Your task to perform on an android device: Show me productivity apps on the Play Store Image 0: 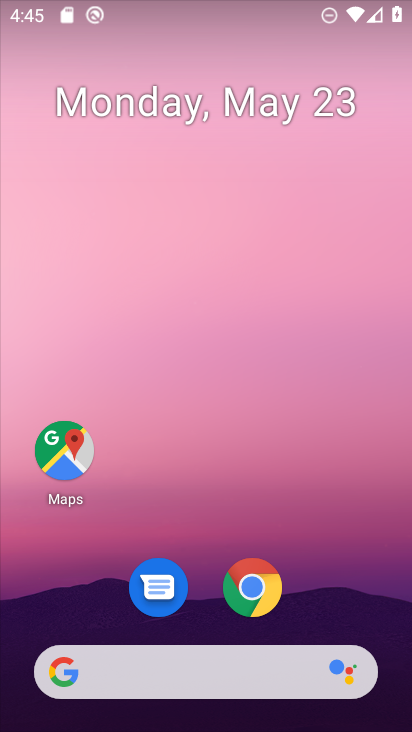
Step 0: drag from (197, 626) to (265, 16)
Your task to perform on an android device: Show me productivity apps on the Play Store Image 1: 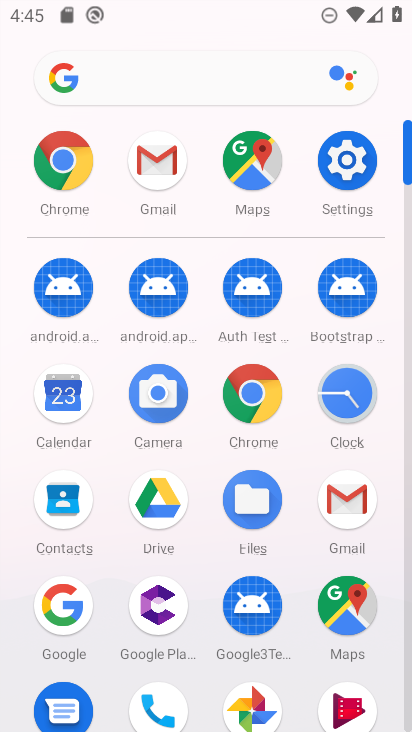
Step 1: drag from (200, 625) to (266, 89)
Your task to perform on an android device: Show me productivity apps on the Play Store Image 2: 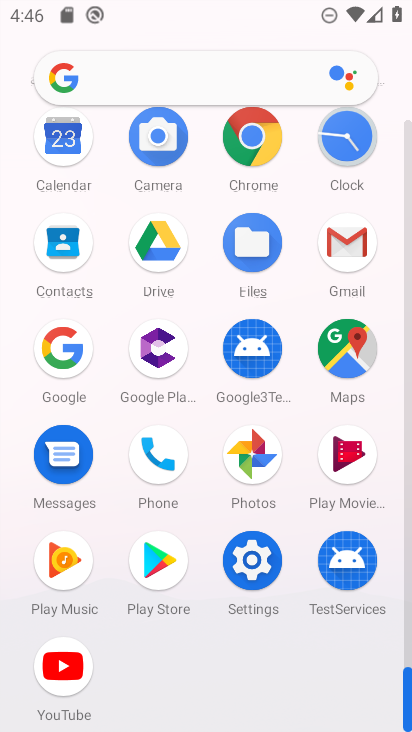
Step 2: click (152, 579)
Your task to perform on an android device: Show me productivity apps on the Play Store Image 3: 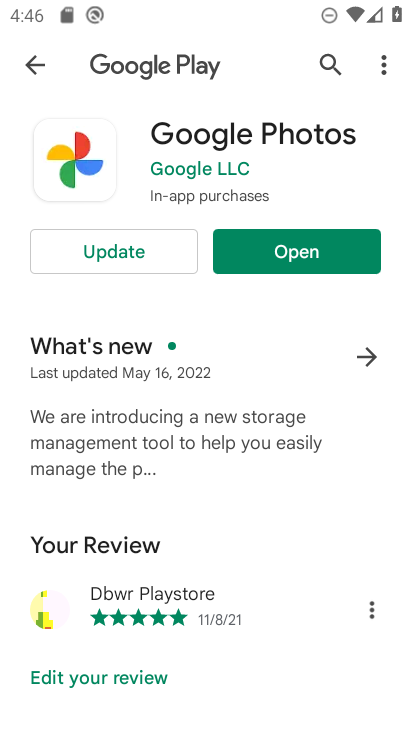
Step 3: click (40, 66)
Your task to perform on an android device: Show me productivity apps on the Play Store Image 4: 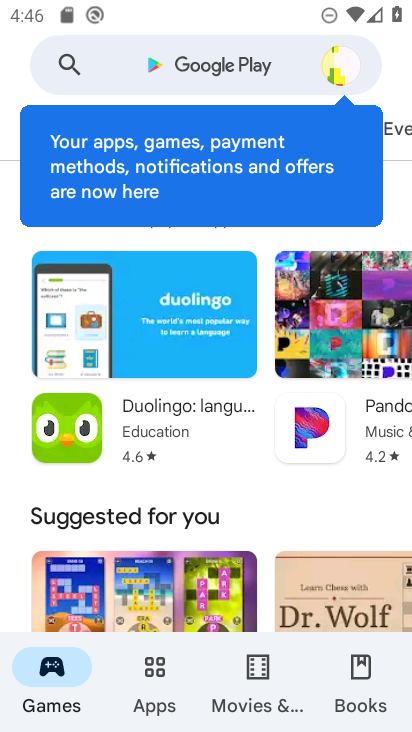
Step 4: click (147, 678)
Your task to perform on an android device: Show me productivity apps on the Play Store Image 5: 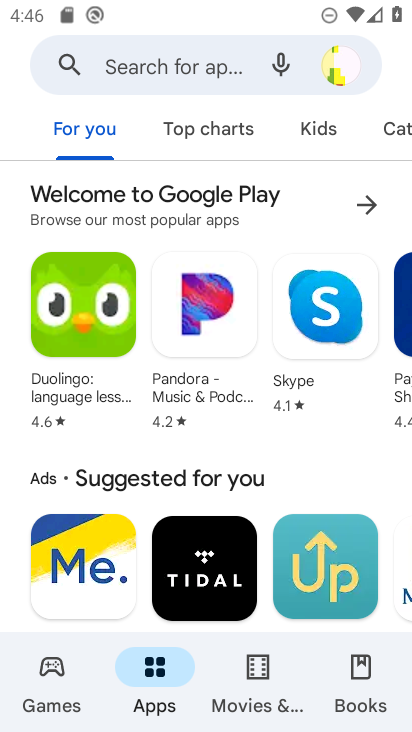
Step 5: click (386, 120)
Your task to perform on an android device: Show me productivity apps on the Play Store Image 6: 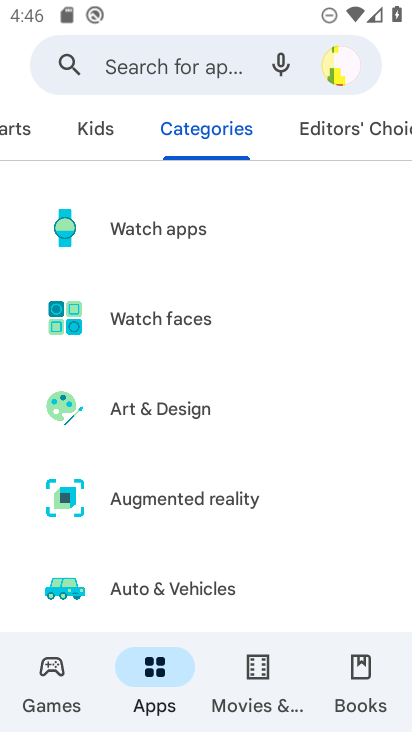
Step 6: drag from (173, 566) to (204, 84)
Your task to perform on an android device: Show me productivity apps on the Play Store Image 7: 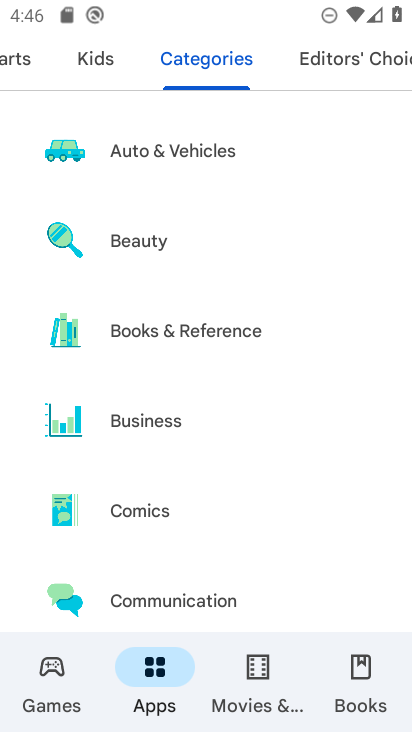
Step 7: drag from (154, 523) to (206, 89)
Your task to perform on an android device: Show me productivity apps on the Play Store Image 8: 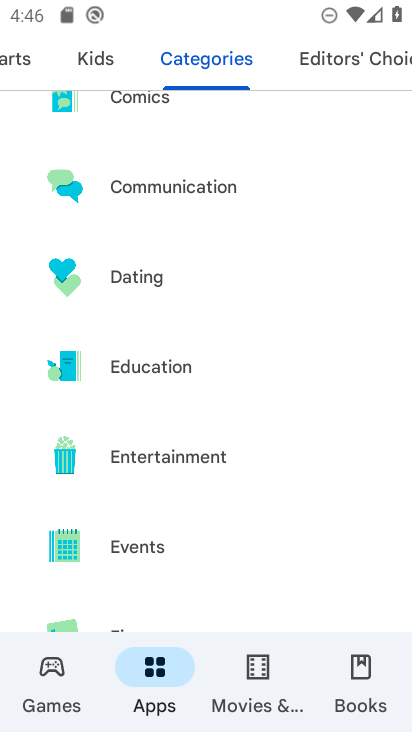
Step 8: drag from (197, 542) to (208, 12)
Your task to perform on an android device: Show me productivity apps on the Play Store Image 9: 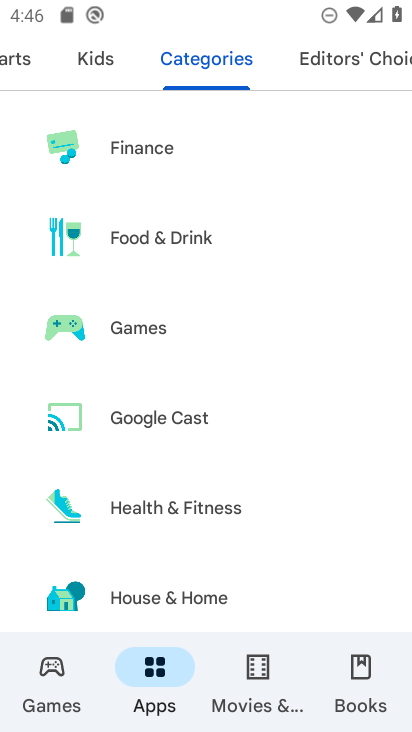
Step 9: drag from (142, 463) to (195, 48)
Your task to perform on an android device: Show me productivity apps on the Play Store Image 10: 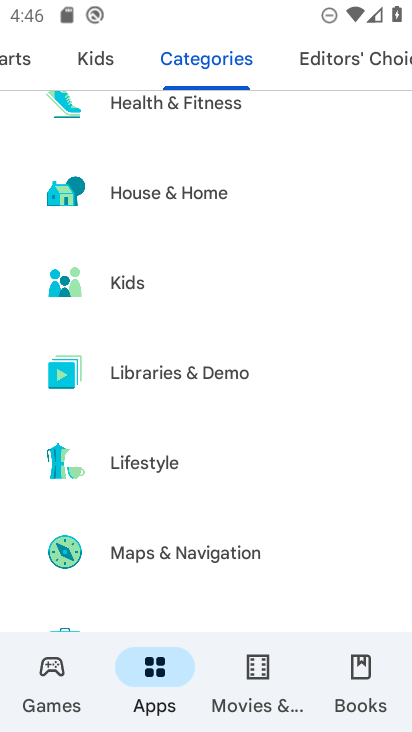
Step 10: drag from (217, 586) to (250, 123)
Your task to perform on an android device: Show me productivity apps on the Play Store Image 11: 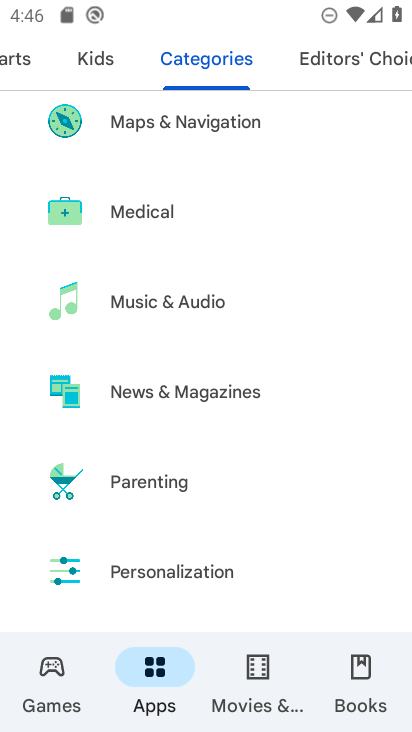
Step 11: drag from (204, 515) to (235, 188)
Your task to perform on an android device: Show me productivity apps on the Play Store Image 12: 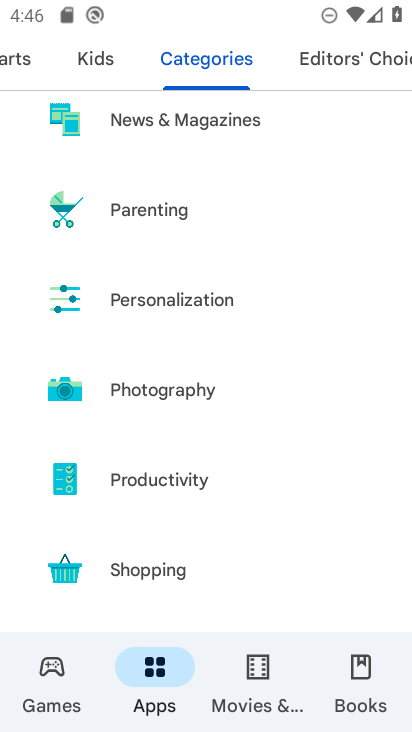
Step 12: drag from (144, 589) to (174, 248)
Your task to perform on an android device: Show me productivity apps on the Play Store Image 13: 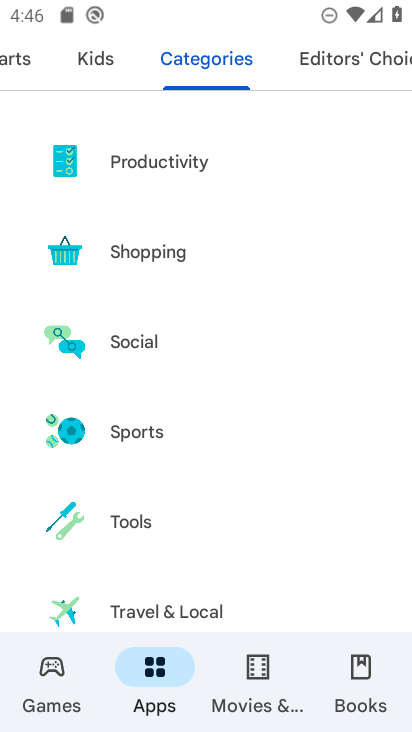
Step 13: drag from (139, 580) to (195, 152)
Your task to perform on an android device: Show me productivity apps on the Play Store Image 14: 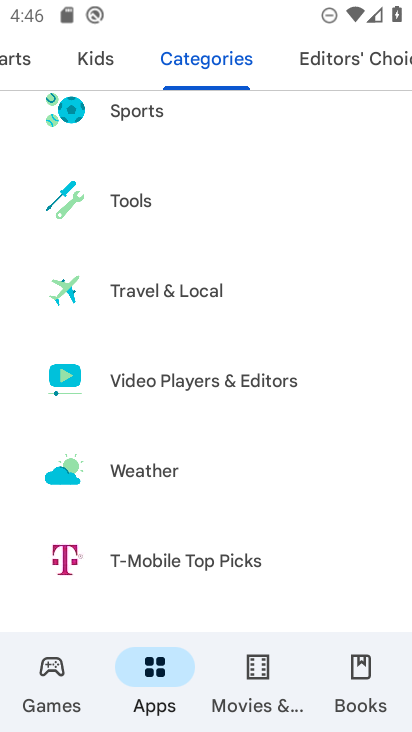
Step 14: drag from (212, 565) to (230, 210)
Your task to perform on an android device: Show me productivity apps on the Play Store Image 15: 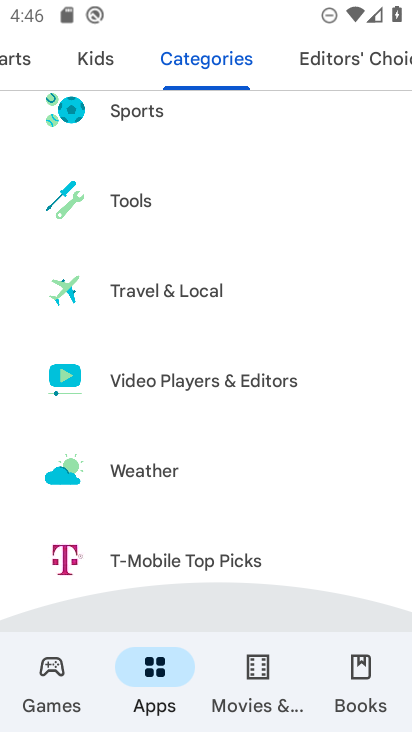
Step 15: drag from (229, 239) to (218, 668)
Your task to perform on an android device: Show me productivity apps on the Play Store Image 16: 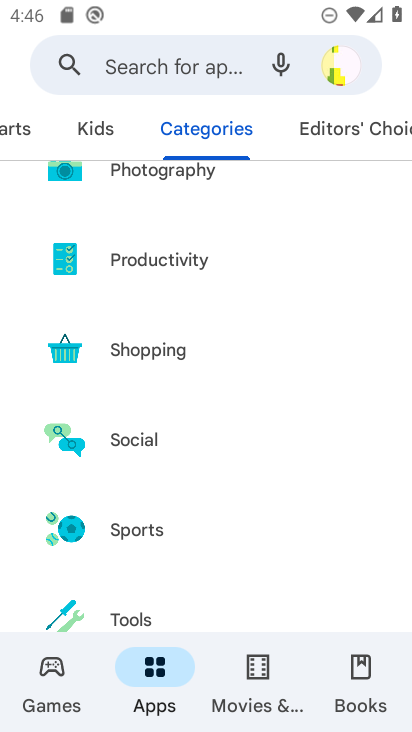
Step 16: drag from (195, 301) to (197, 352)
Your task to perform on an android device: Show me productivity apps on the Play Store Image 17: 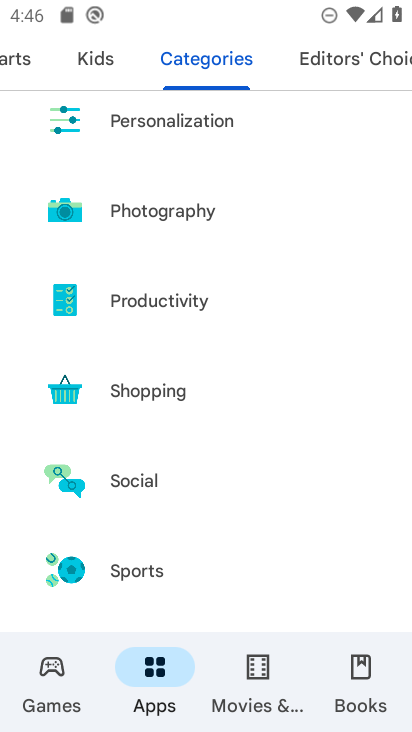
Step 17: click (176, 312)
Your task to perform on an android device: Show me productivity apps on the Play Store Image 18: 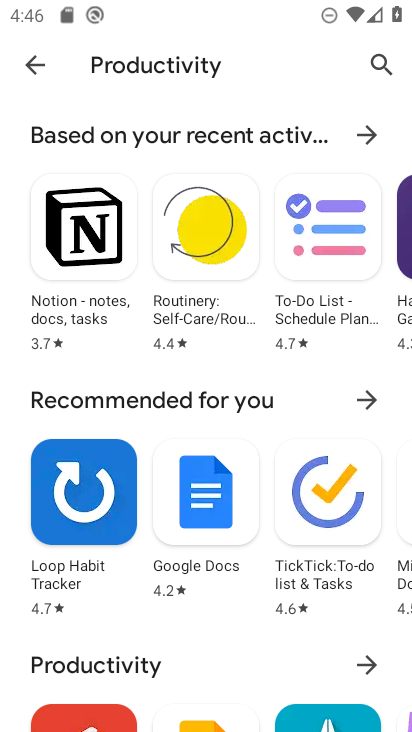
Step 18: task complete